Your task to perform on an android device: When is my next meeting? Image 0: 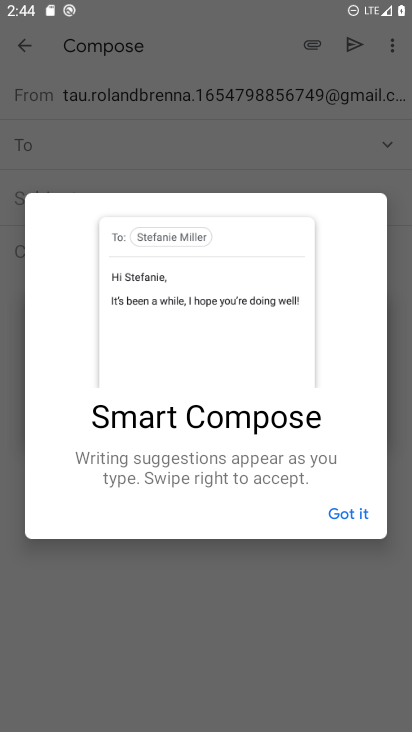
Step 0: press home button
Your task to perform on an android device: When is my next meeting? Image 1: 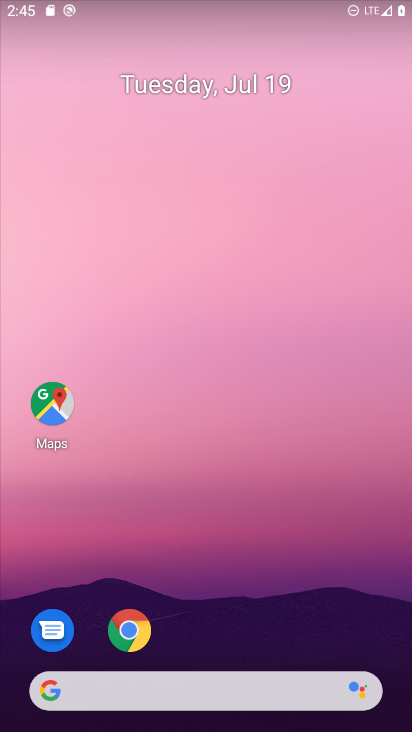
Step 1: drag from (364, 639) to (336, 153)
Your task to perform on an android device: When is my next meeting? Image 2: 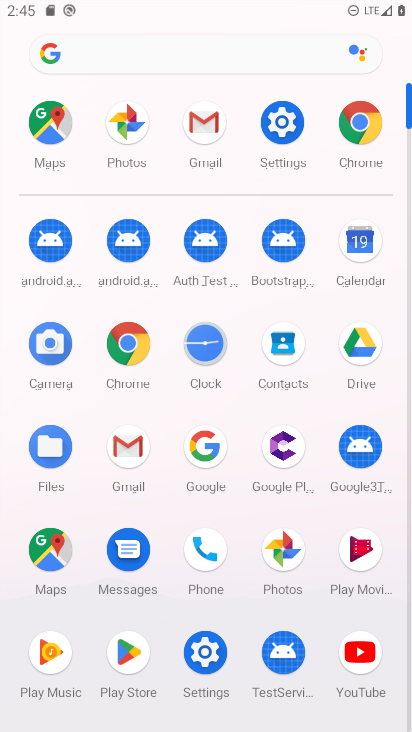
Step 2: click (359, 243)
Your task to perform on an android device: When is my next meeting? Image 3: 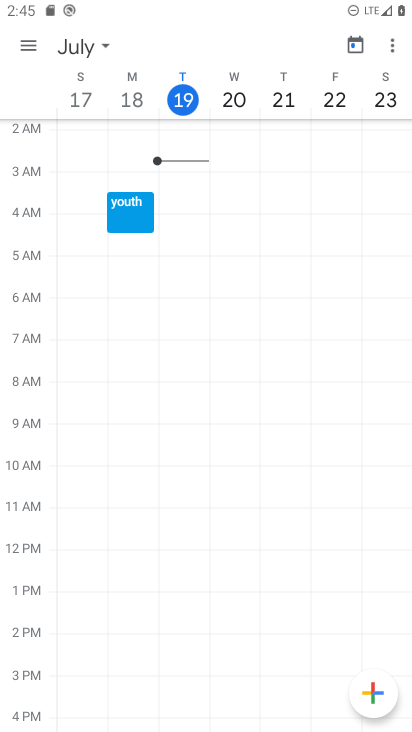
Step 3: click (31, 47)
Your task to perform on an android device: When is my next meeting? Image 4: 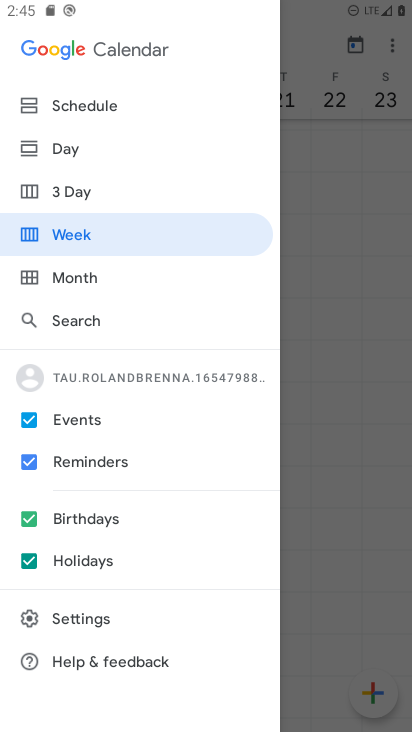
Step 4: click (79, 111)
Your task to perform on an android device: When is my next meeting? Image 5: 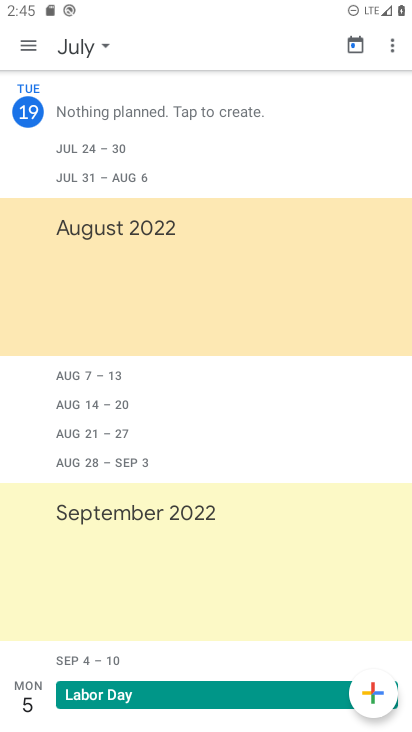
Step 5: task complete